Your task to perform on an android device: turn on airplane mode Image 0: 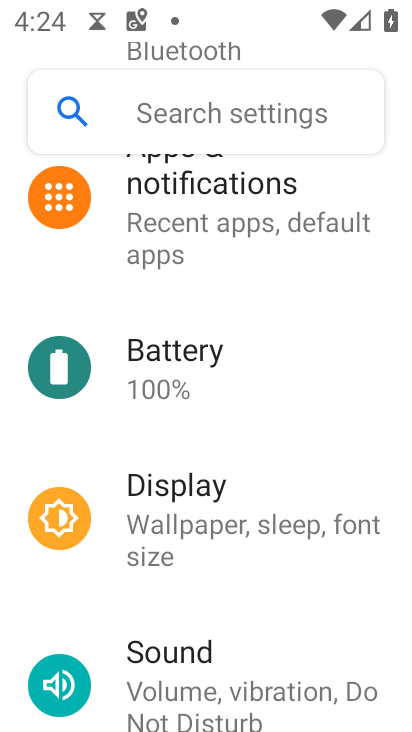
Step 0: drag from (236, 232) to (294, 639)
Your task to perform on an android device: turn on airplane mode Image 1: 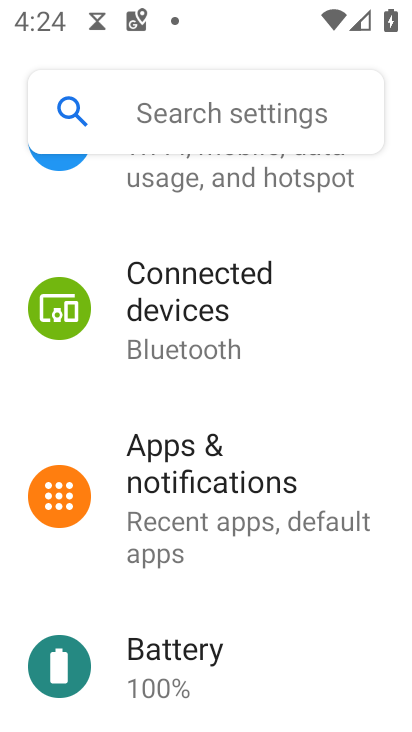
Step 1: drag from (274, 250) to (259, 646)
Your task to perform on an android device: turn on airplane mode Image 2: 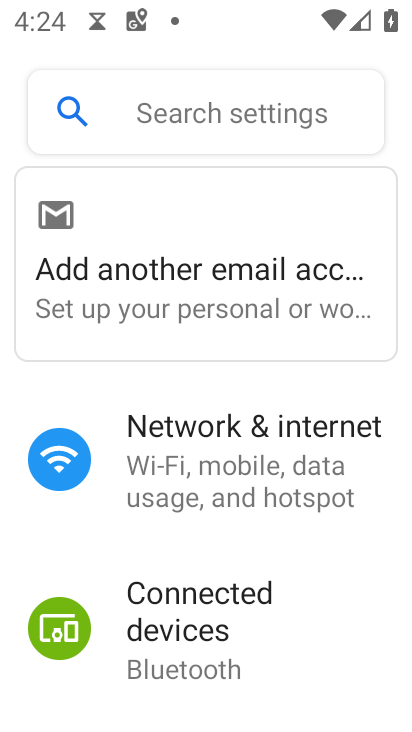
Step 2: click (231, 443)
Your task to perform on an android device: turn on airplane mode Image 3: 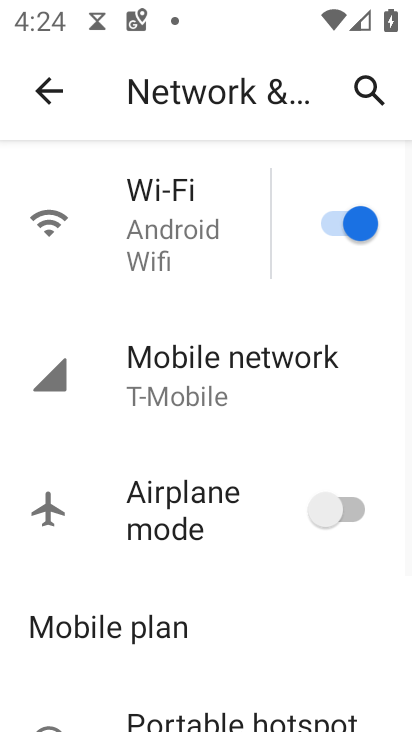
Step 3: click (316, 528)
Your task to perform on an android device: turn on airplane mode Image 4: 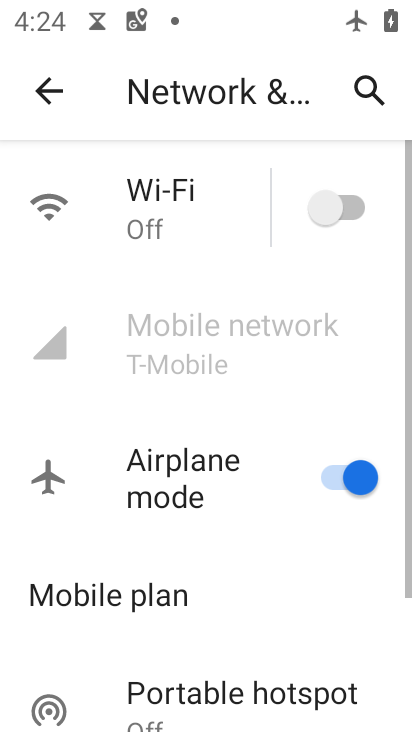
Step 4: task complete